Your task to perform on an android device: toggle notification dots Image 0: 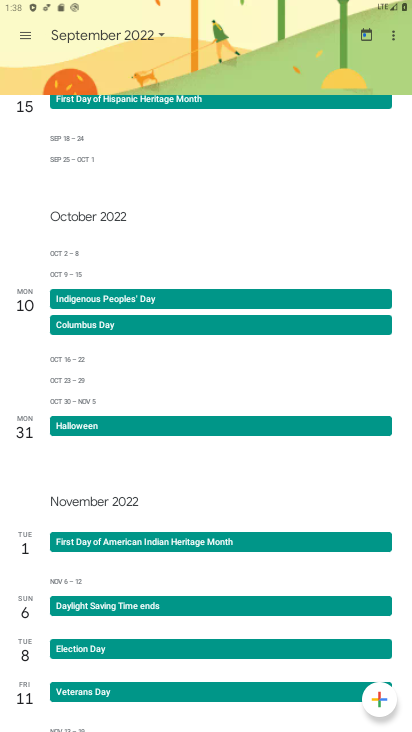
Step 0: press home button
Your task to perform on an android device: toggle notification dots Image 1: 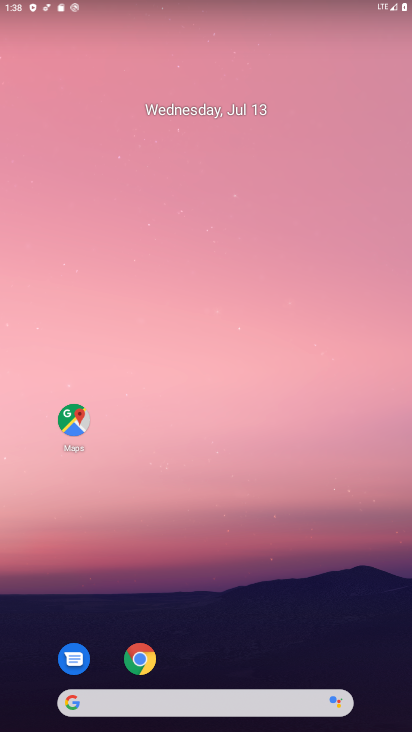
Step 1: drag from (387, 689) to (342, 199)
Your task to perform on an android device: toggle notification dots Image 2: 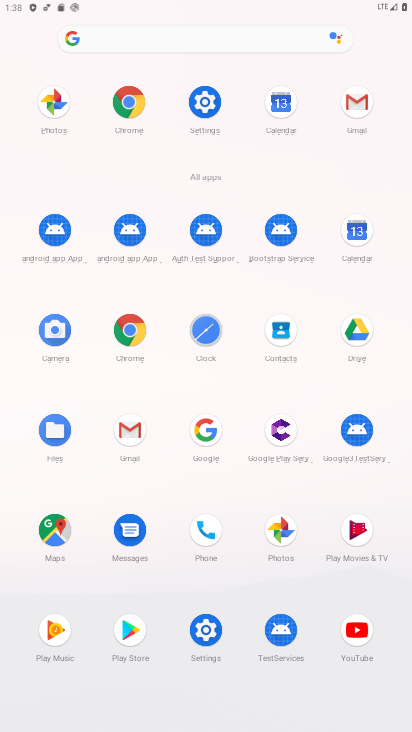
Step 2: click (205, 632)
Your task to perform on an android device: toggle notification dots Image 3: 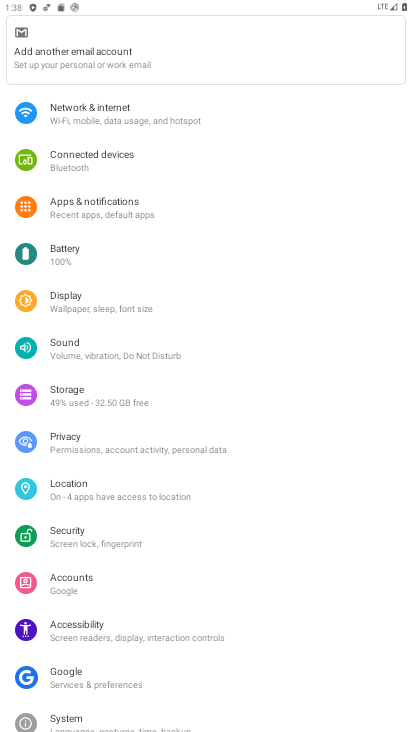
Step 3: click (95, 197)
Your task to perform on an android device: toggle notification dots Image 4: 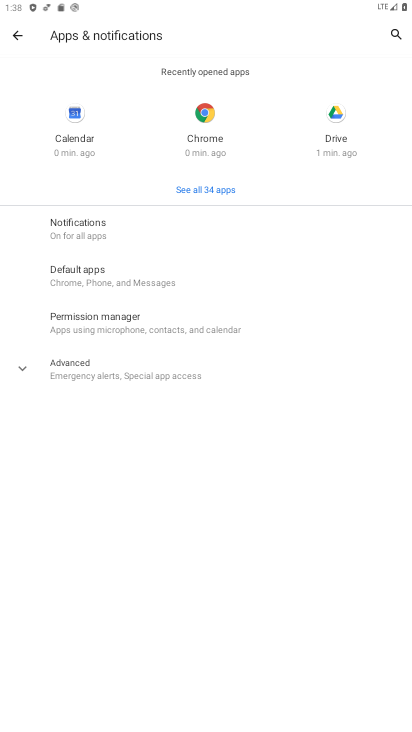
Step 4: click (90, 218)
Your task to perform on an android device: toggle notification dots Image 5: 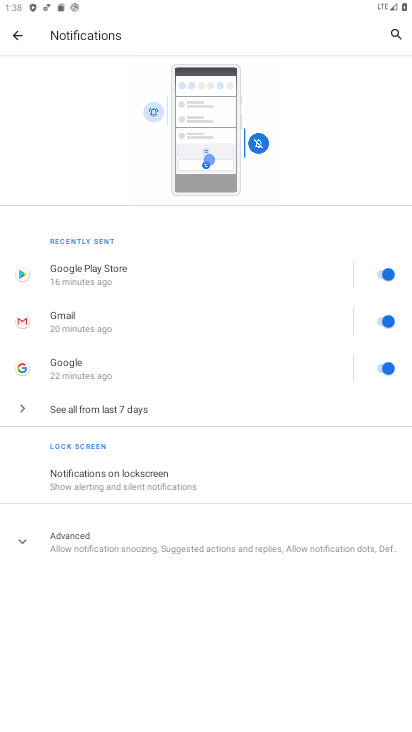
Step 5: click (16, 539)
Your task to perform on an android device: toggle notification dots Image 6: 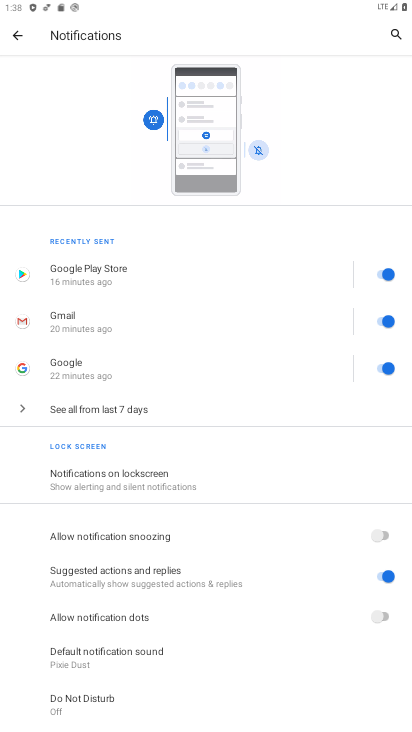
Step 6: click (380, 611)
Your task to perform on an android device: toggle notification dots Image 7: 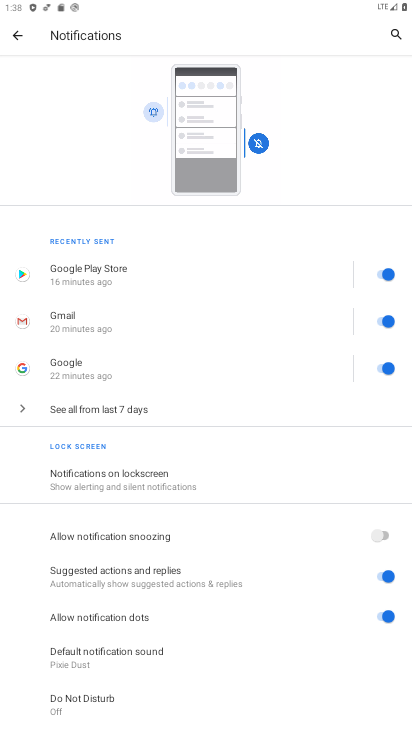
Step 7: task complete